Your task to perform on an android device: Open the calendar app, open the side menu, and click the "Day" option Image 0: 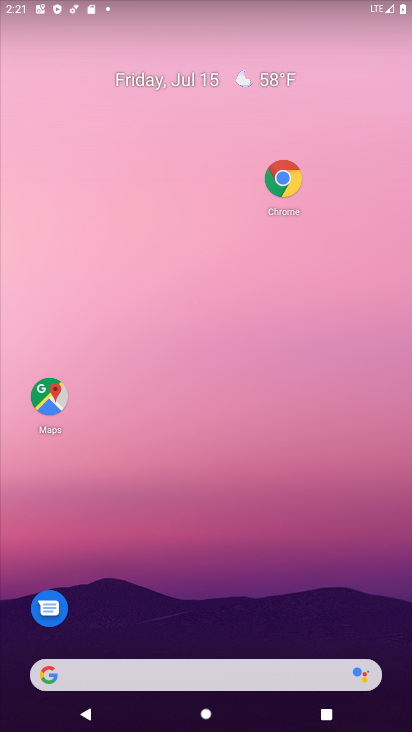
Step 0: drag from (149, 613) to (175, 70)
Your task to perform on an android device: Open the calendar app, open the side menu, and click the "Day" option Image 1: 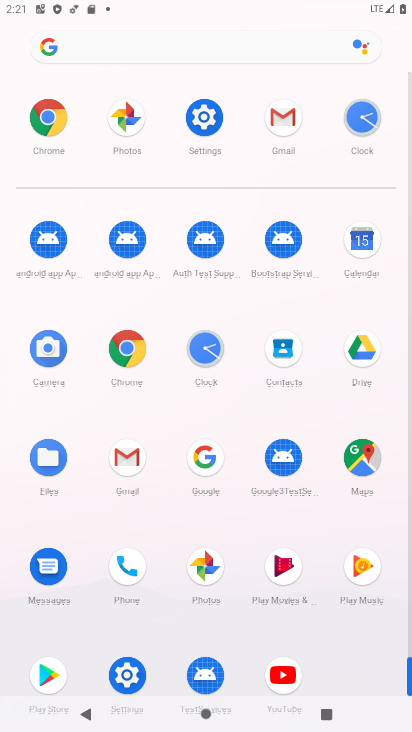
Step 1: click (356, 238)
Your task to perform on an android device: Open the calendar app, open the side menu, and click the "Day" option Image 2: 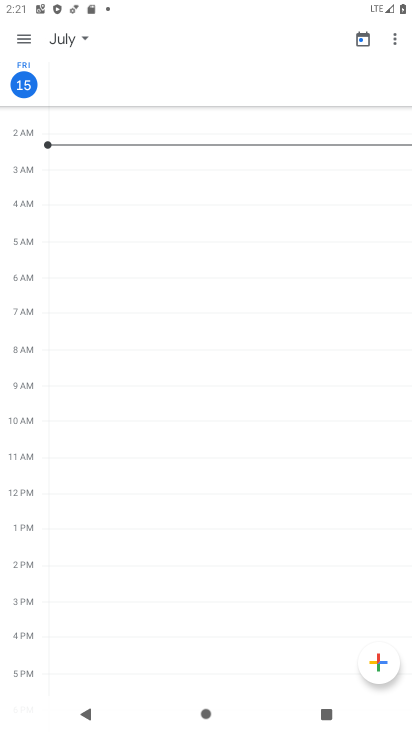
Step 2: task complete